Your task to perform on an android device: Go to Google Image 0: 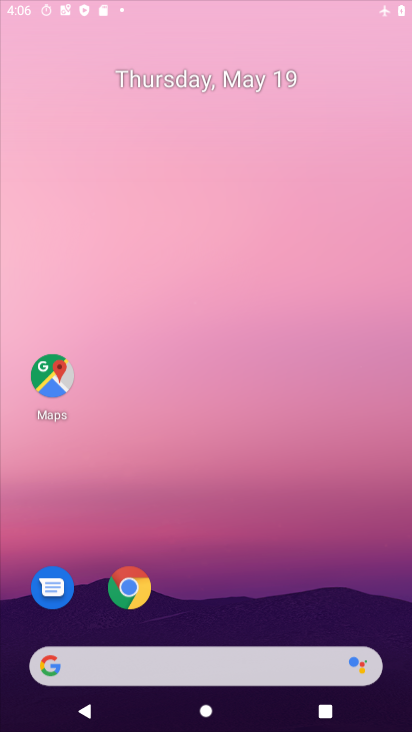
Step 0: drag from (202, 640) to (276, 5)
Your task to perform on an android device: Go to Google Image 1: 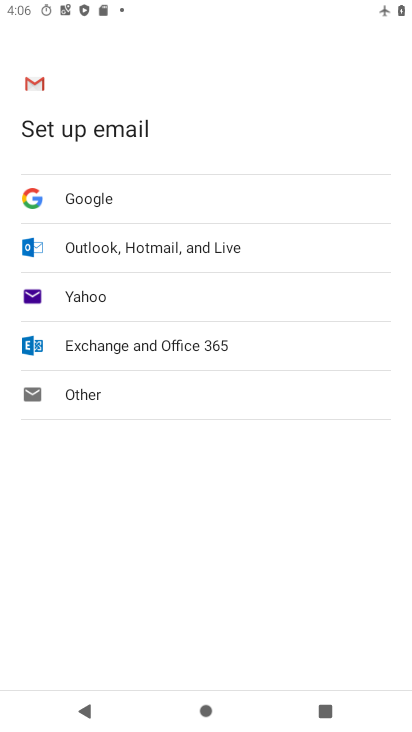
Step 1: press home button
Your task to perform on an android device: Go to Google Image 2: 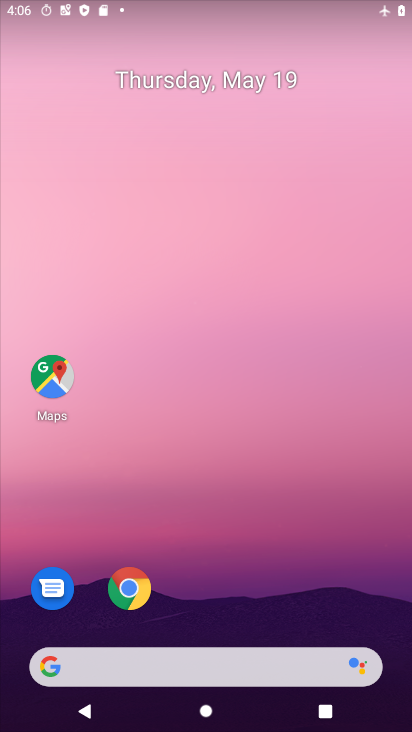
Step 2: click (174, 672)
Your task to perform on an android device: Go to Google Image 3: 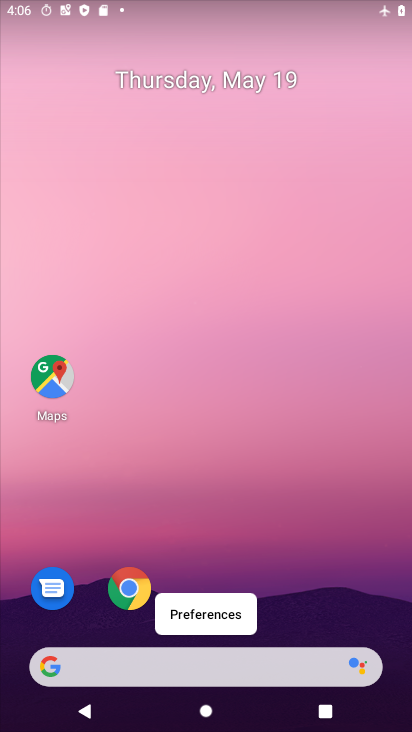
Step 3: click (63, 672)
Your task to perform on an android device: Go to Google Image 4: 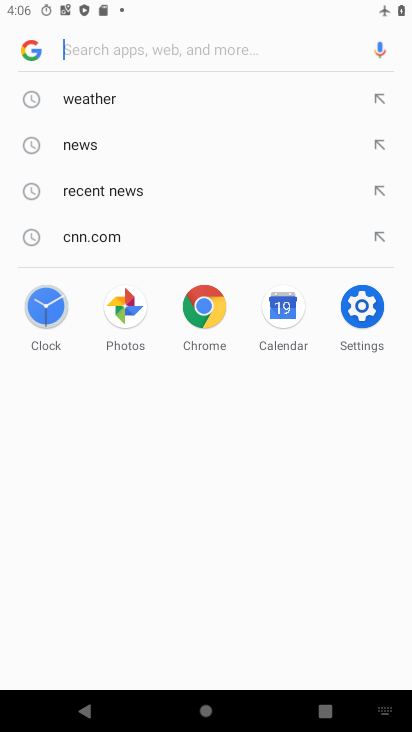
Step 4: click (23, 52)
Your task to perform on an android device: Go to Google Image 5: 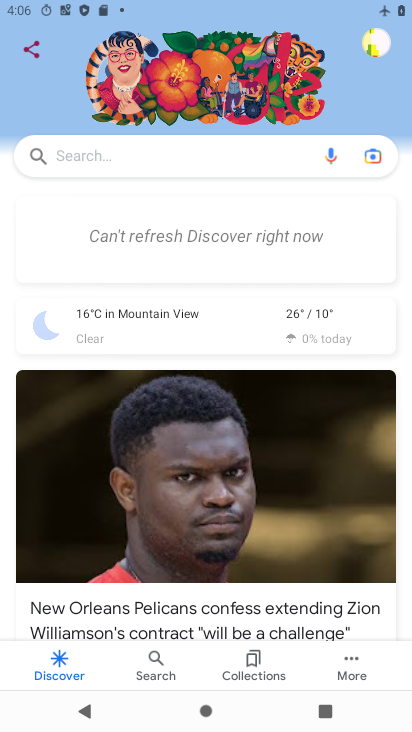
Step 5: task complete